Your task to perform on an android device: refresh tabs in the chrome app Image 0: 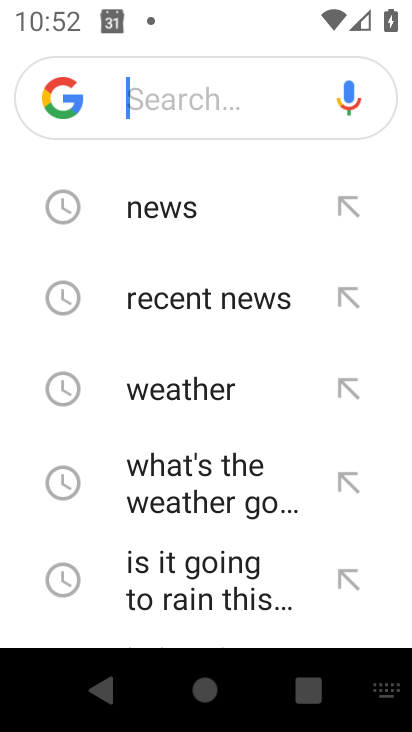
Step 0: press home button
Your task to perform on an android device: refresh tabs in the chrome app Image 1: 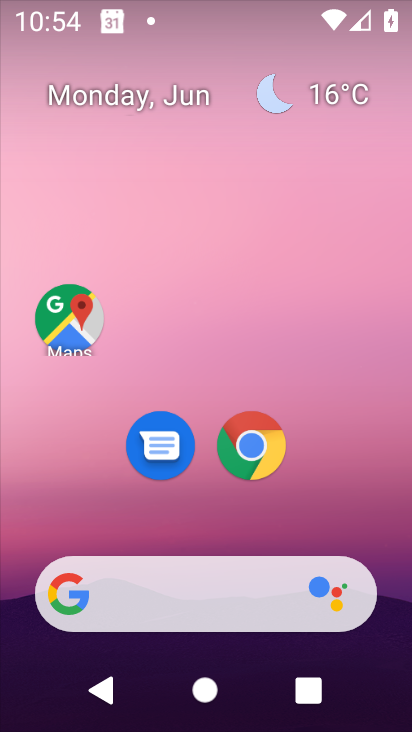
Step 1: click (263, 451)
Your task to perform on an android device: refresh tabs in the chrome app Image 2: 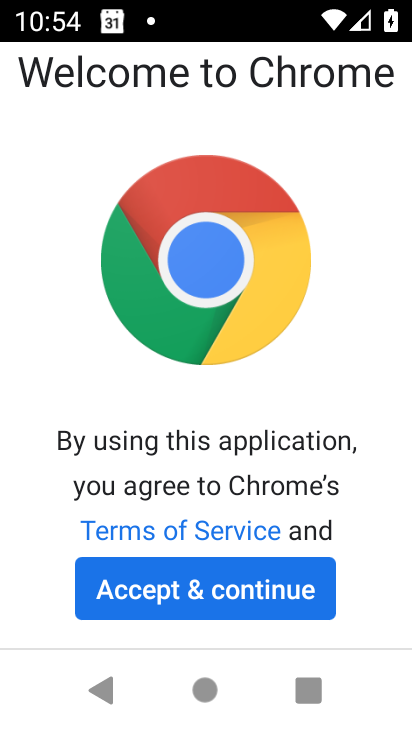
Step 2: click (210, 579)
Your task to perform on an android device: refresh tabs in the chrome app Image 3: 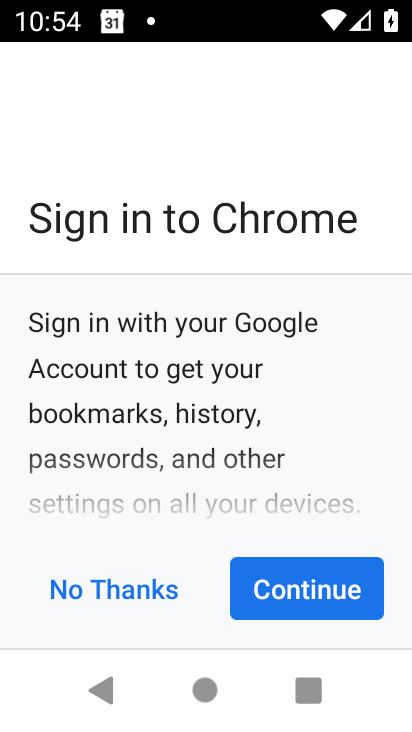
Step 3: click (249, 587)
Your task to perform on an android device: refresh tabs in the chrome app Image 4: 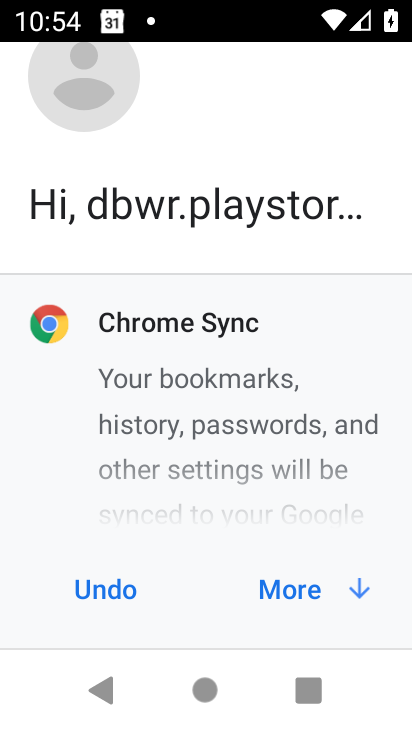
Step 4: click (301, 588)
Your task to perform on an android device: refresh tabs in the chrome app Image 5: 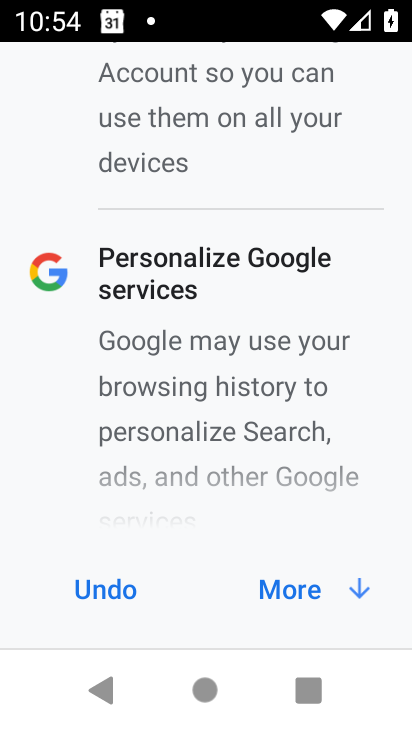
Step 5: click (300, 586)
Your task to perform on an android device: refresh tabs in the chrome app Image 6: 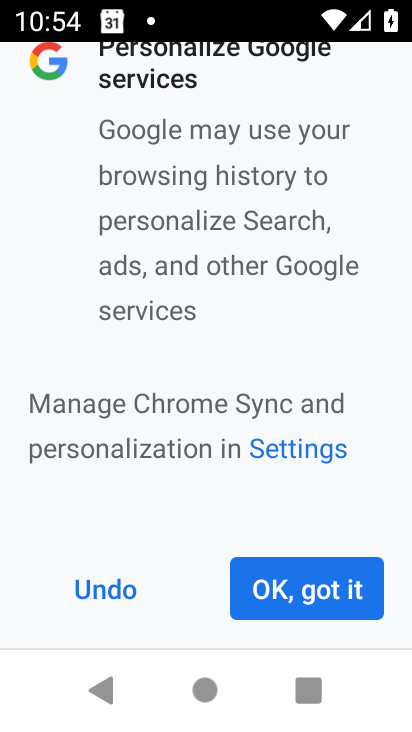
Step 6: click (306, 588)
Your task to perform on an android device: refresh tabs in the chrome app Image 7: 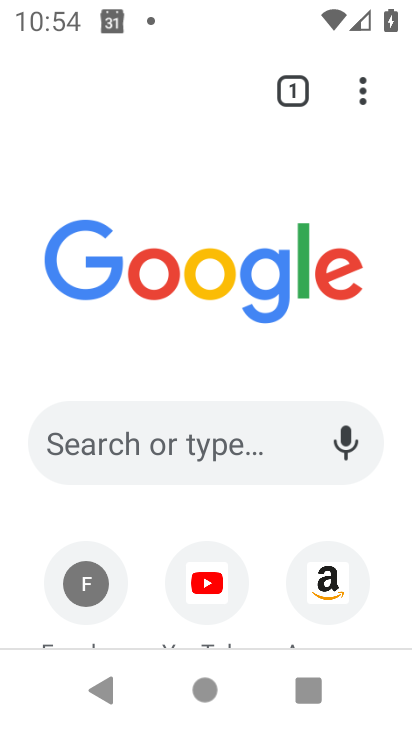
Step 7: drag from (364, 99) to (410, 94)
Your task to perform on an android device: refresh tabs in the chrome app Image 8: 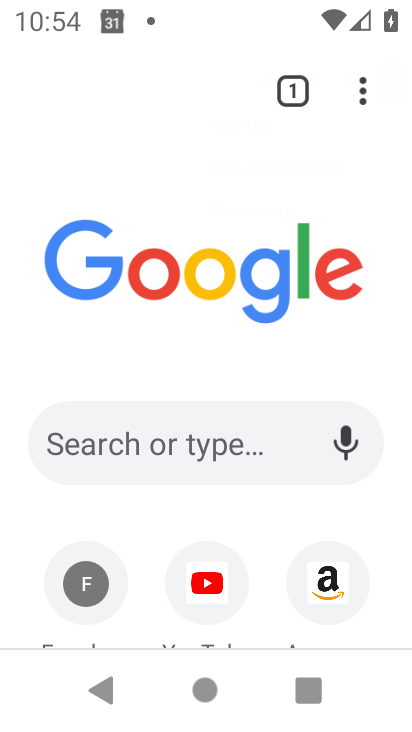
Step 8: click (408, 93)
Your task to perform on an android device: refresh tabs in the chrome app Image 9: 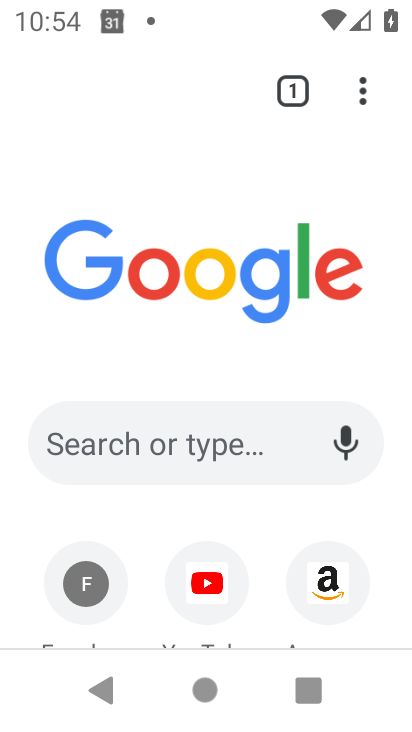
Step 9: task complete